Your task to perform on an android device: visit the assistant section in the google photos Image 0: 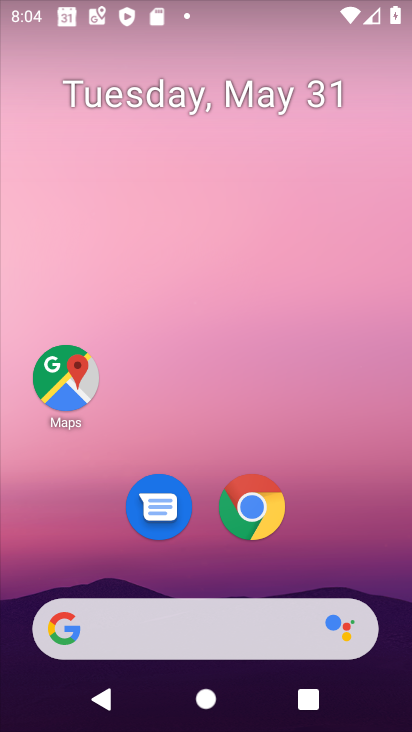
Step 0: drag from (354, 504) to (253, 71)
Your task to perform on an android device: visit the assistant section in the google photos Image 1: 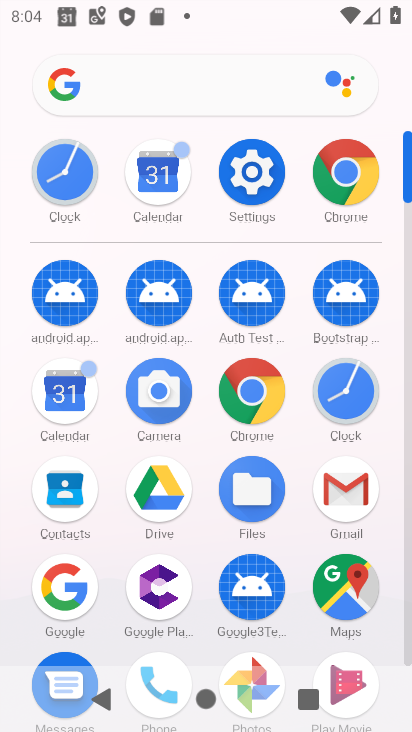
Step 1: click (255, 662)
Your task to perform on an android device: visit the assistant section in the google photos Image 2: 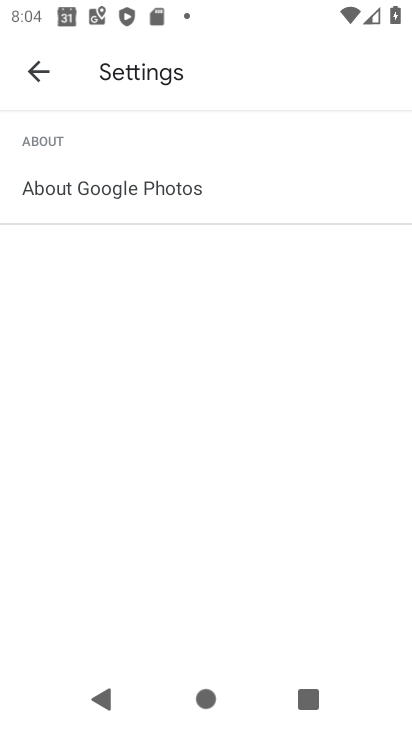
Step 2: click (29, 81)
Your task to perform on an android device: visit the assistant section in the google photos Image 3: 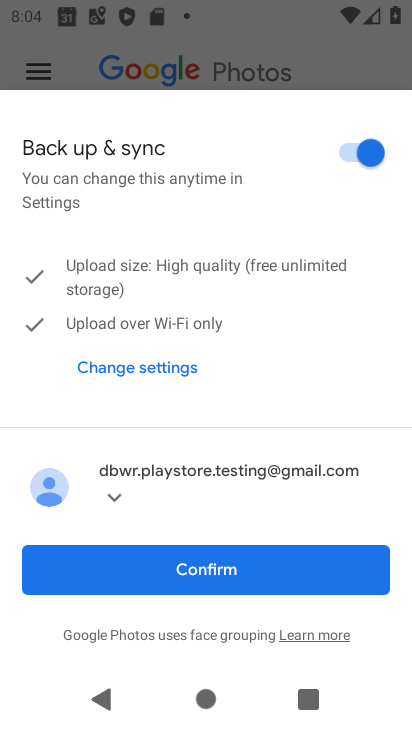
Step 3: click (185, 555)
Your task to perform on an android device: visit the assistant section in the google photos Image 4: 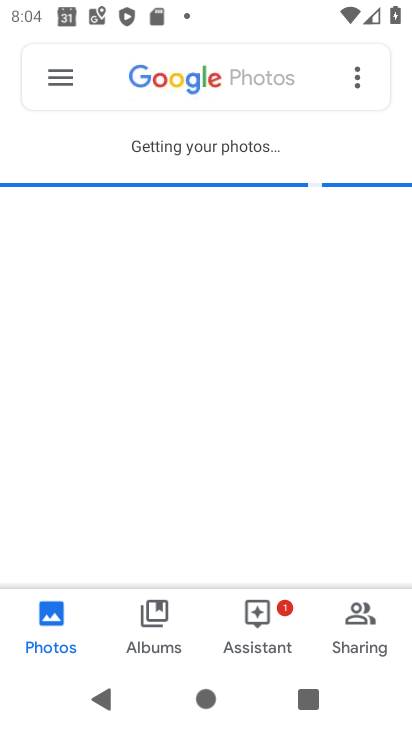
Step 4: click (268, 632)
Your task to perform on an android device: visit the assistant section in the google photos Image 5: 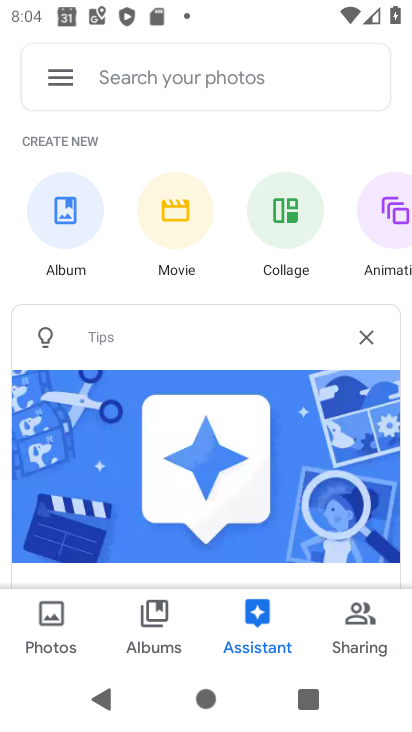
Step 5: task complete